Your task to perform on an android device: toggle sleep mode Image 0: 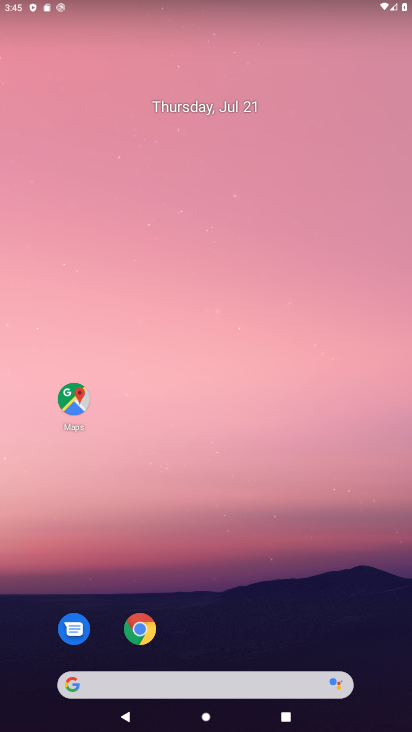
Step 0: drag from (372, 649) to (253, 109)
Your task to perform on an android device: toggle sleep mode Image 1: 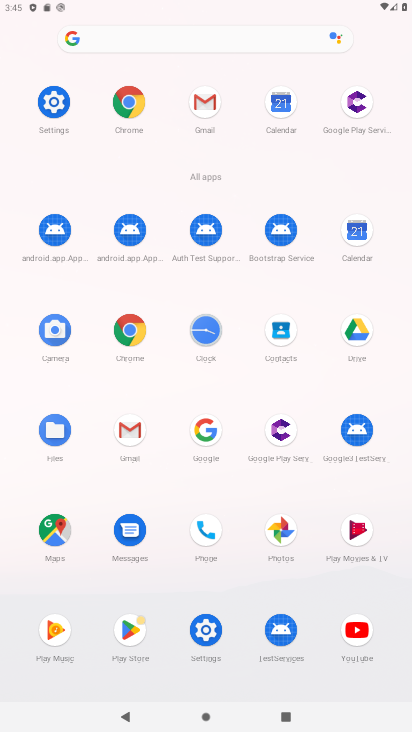
Step 1: click (54, 97)
Your task to perform on an android device: toggle sleep mode Image 2: 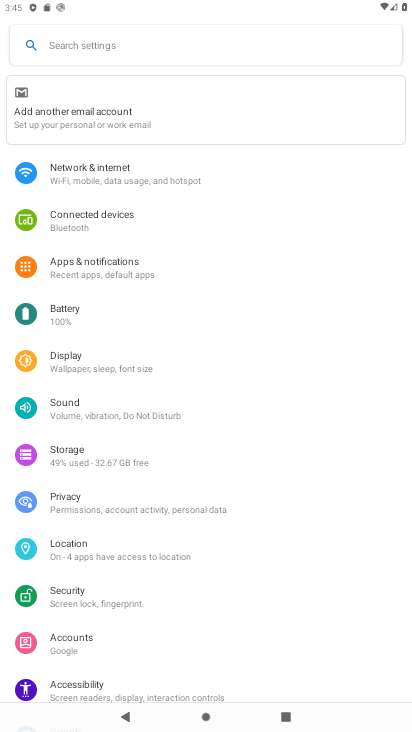
Step 2: drag from (108, 266) to (102, 93)
Your task to perform on an android device: toggle sleep mode Image 3: 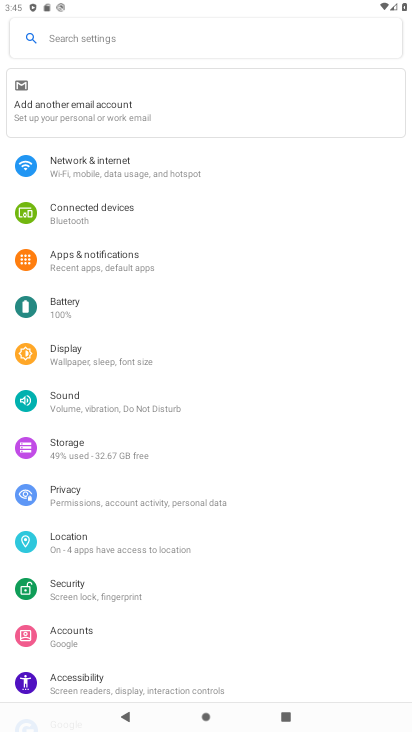
Step 3: click (132, 355)
Your task to perform on an android device: toggle sleep mode Image 4: 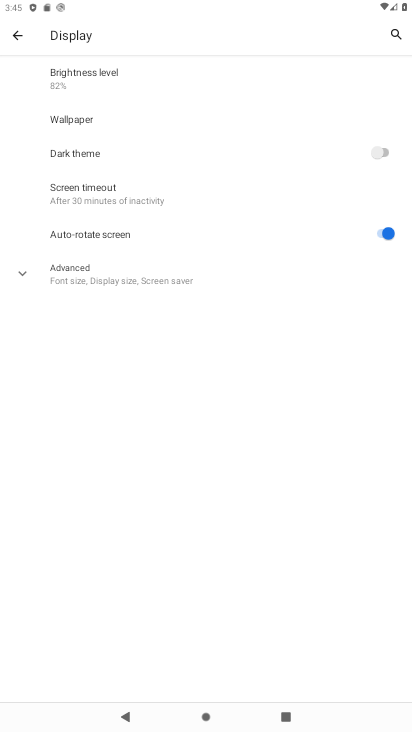
Step 4: click (172, 282)
Your task to perform on an android device: toggle sleep mode Image 5: 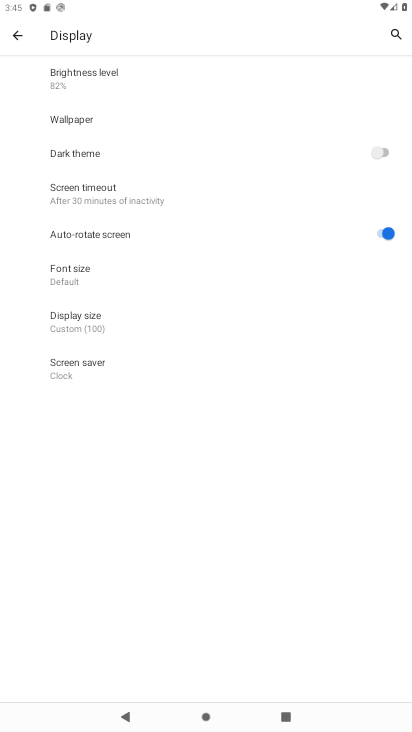
Step 5: task complete